Your task to perform on an android device: Open settings on Google Maps Image 0: 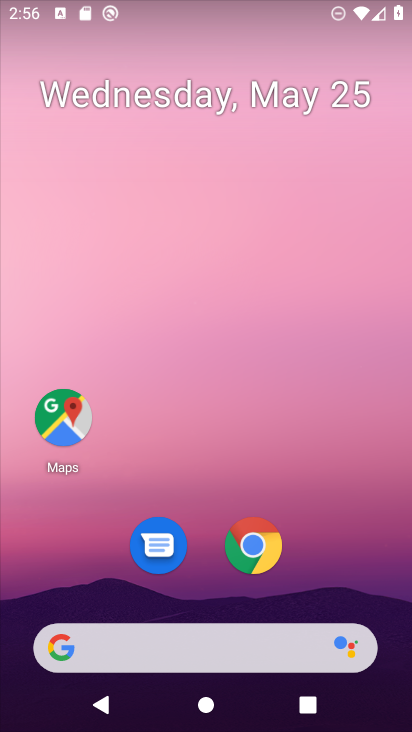
Step 0: click (83, 423)
Your task to perform on an android device: Open settings on Google Maps Image 1: 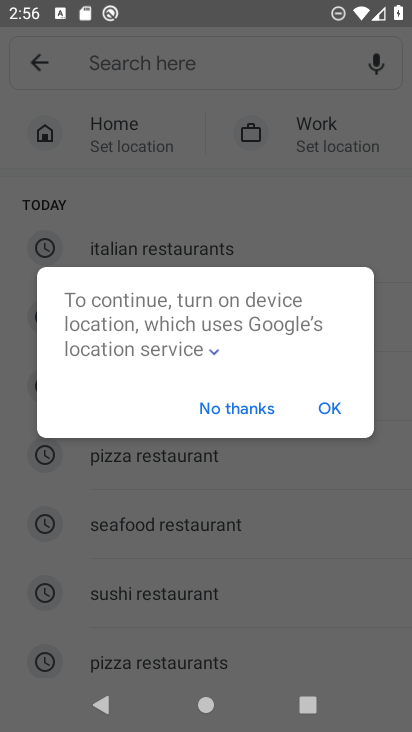
Step 1: click (263, 409)
Your task to perform on an android device: Open settings on Google Maps Image 2: 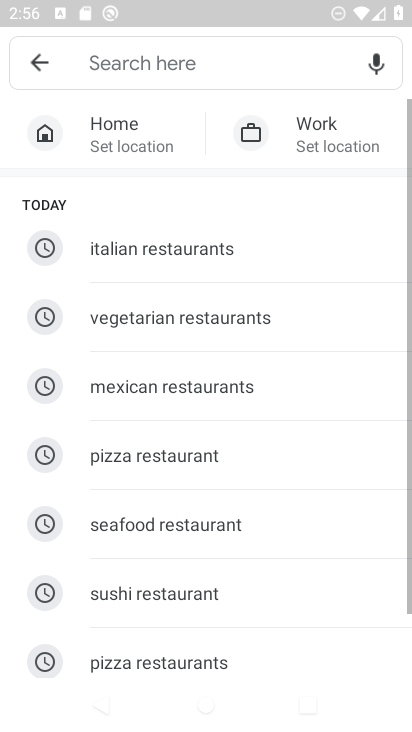
Step 2: click (41, 64)
Your task to perform on an android device: Open settings on Google Maps Image 3: 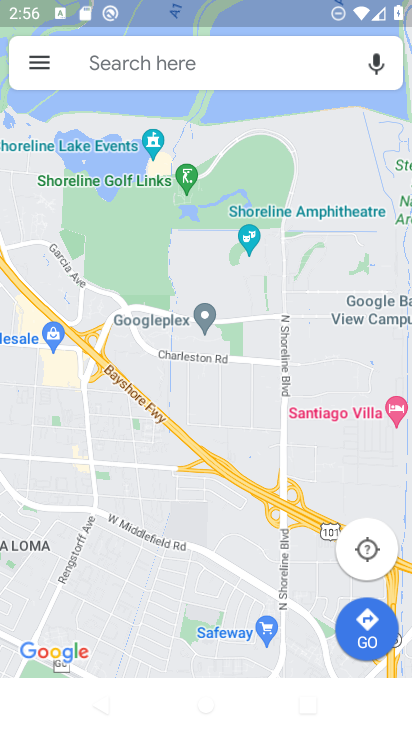
Step 3: click (41, 64)
Your task to perform on an android device: Open settings on Google Maps Image 4: 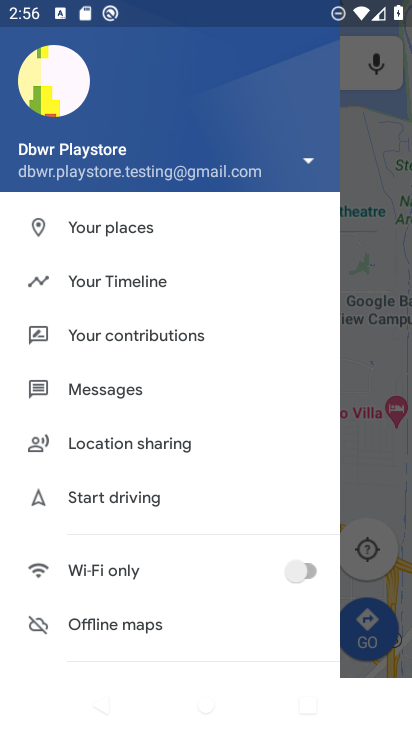
Step 4: drag from (156, 573) to (169, 351)
Your task to perform on an android device: Open settings on Google Maps Image 5: 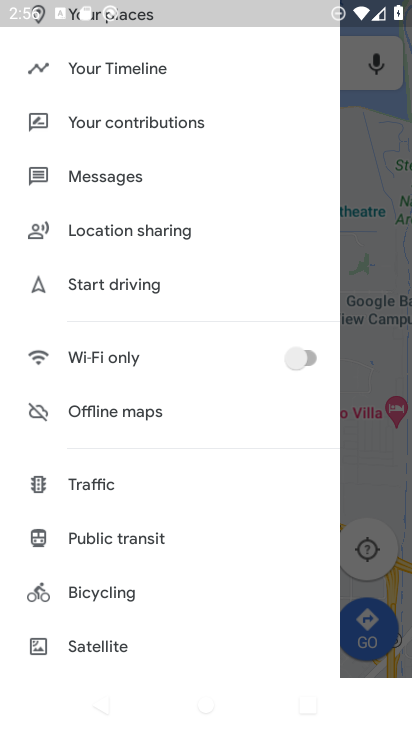
Step 5: drag from (130, 619) to (141, 208)
Your task to perform on an android device: Open settings on Google Maps Image 6: 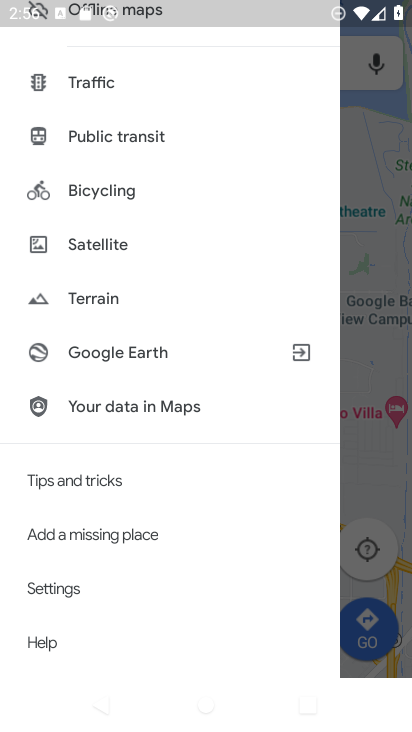
Step 6: click (130, 584)
Your task to perform on an android device: Open settings on Google Maps Image 7: 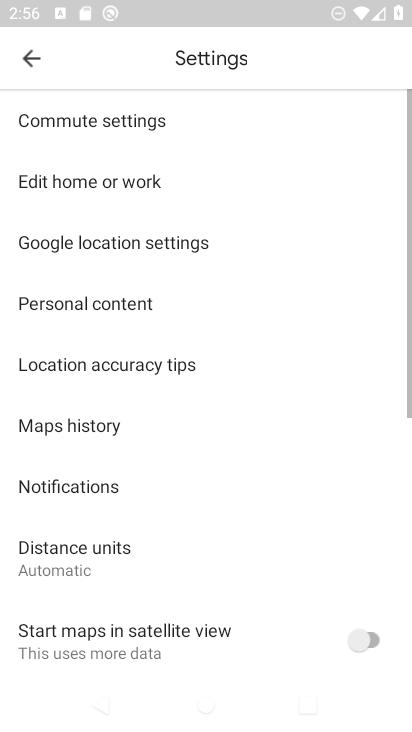
Step 7: task complete